Your task to perform on an android device: Search for logitech g pro on bestbuy.com, select the first entry, add it to the cart, then select checkout. Image 0: 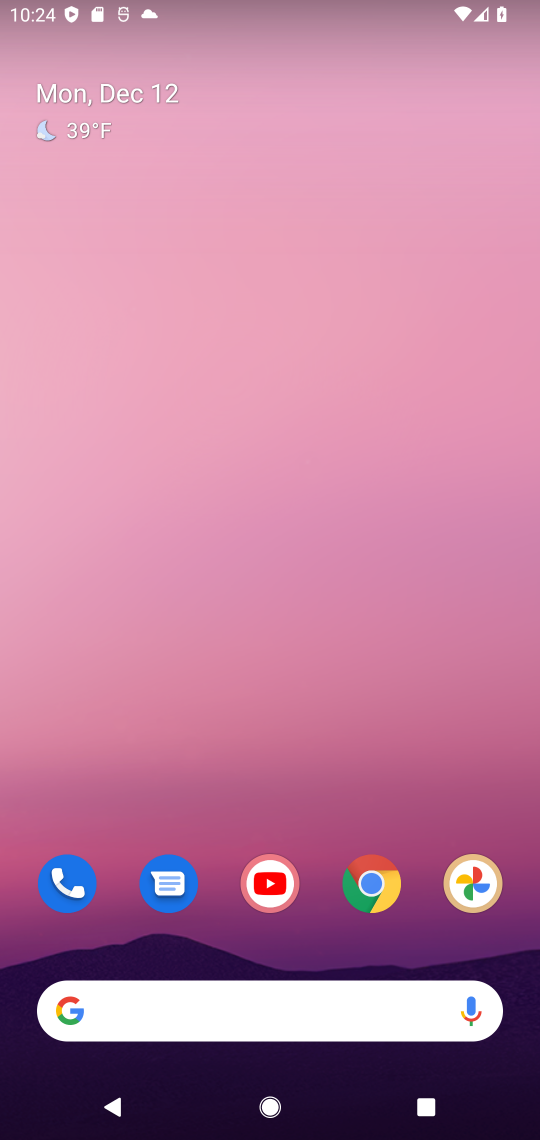
Step 0: drag from (238, 778) to (326, 233)
Your task to perform on an android device: Search for logitech g pro on bestbuy.com, select the first entry, add it to the cart, then select checkout. Image 1: 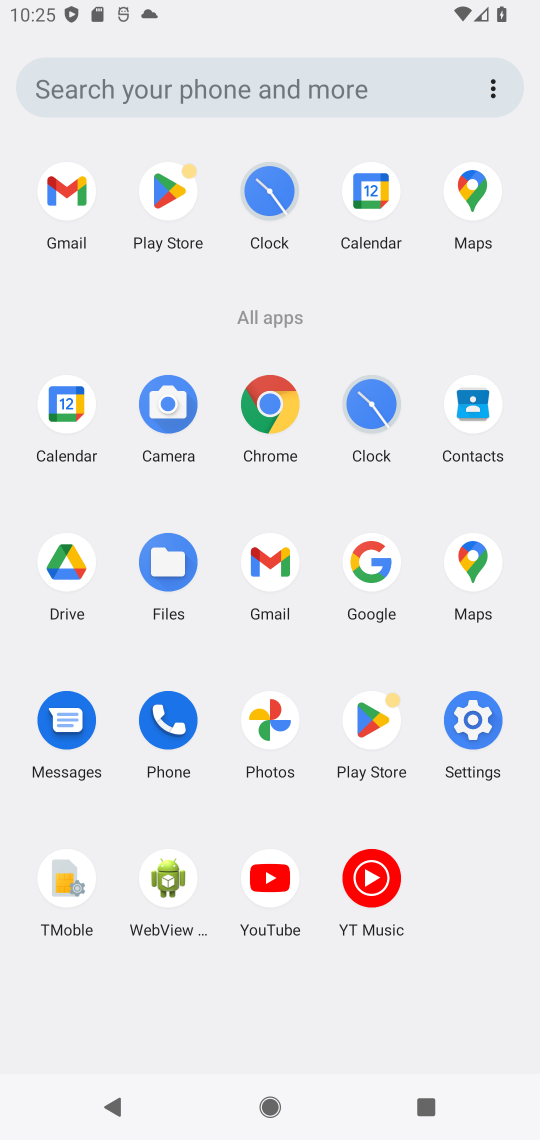
Step 1: click (365, 548)
Your task to perform on an android device: Search for logitech g pro on bestbuy.com, select the first entry, add it to the cart, then select checkout. Image 2: 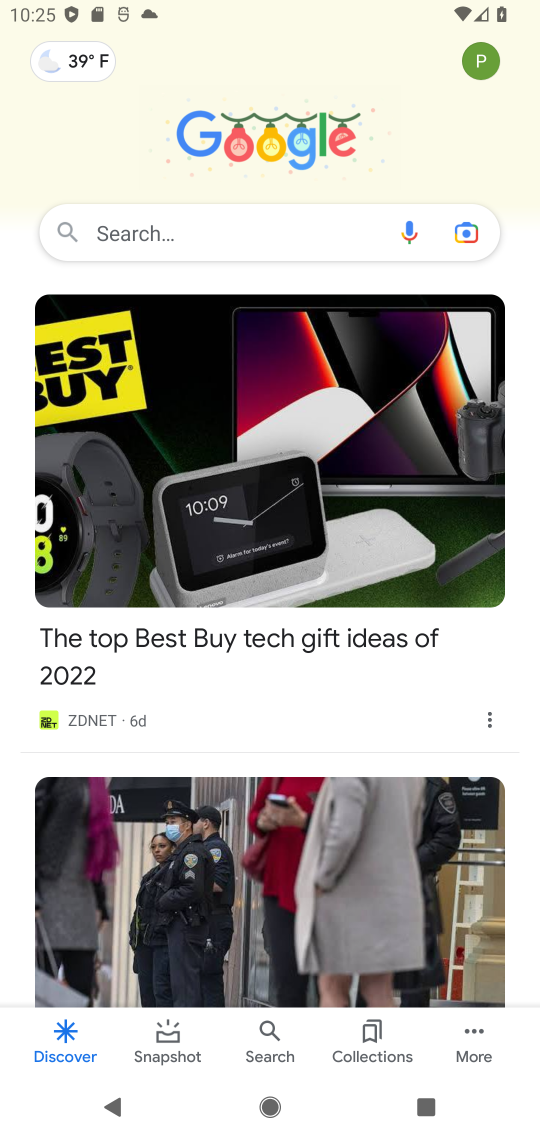
Step 2: click (266, 227)
Your task to perform on an android device: Search for logitech g pro on bestbuy.com, select the first entry, add it to the cart, then select checkout. Image 3: 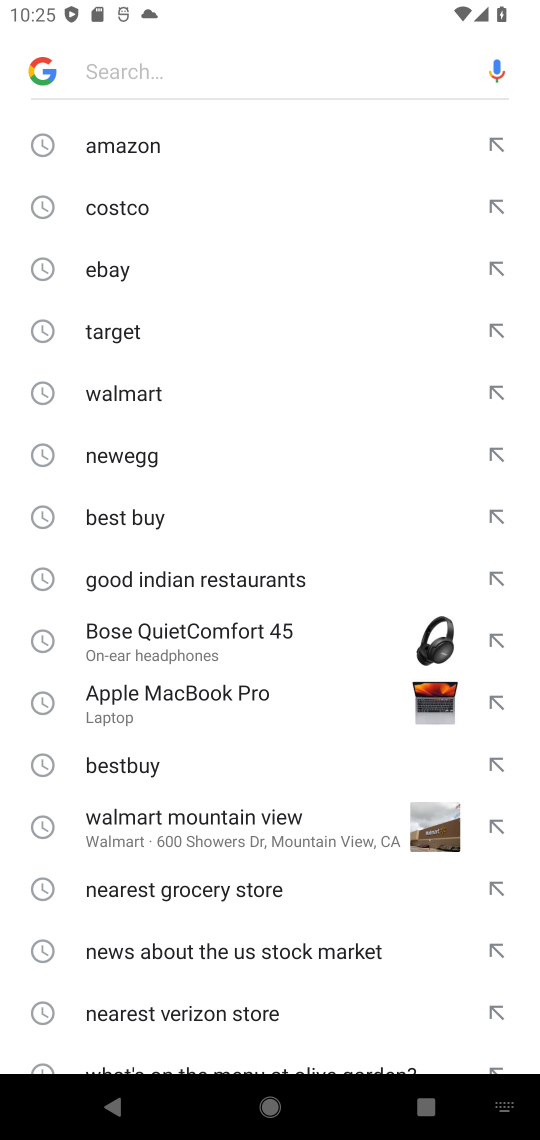
Step 3: click (131, 518)
Your task to perform on an android device: Search for logitech g pro on bestbuy.com, select the first entry, add it to the cart, then select checkout. Image 4: 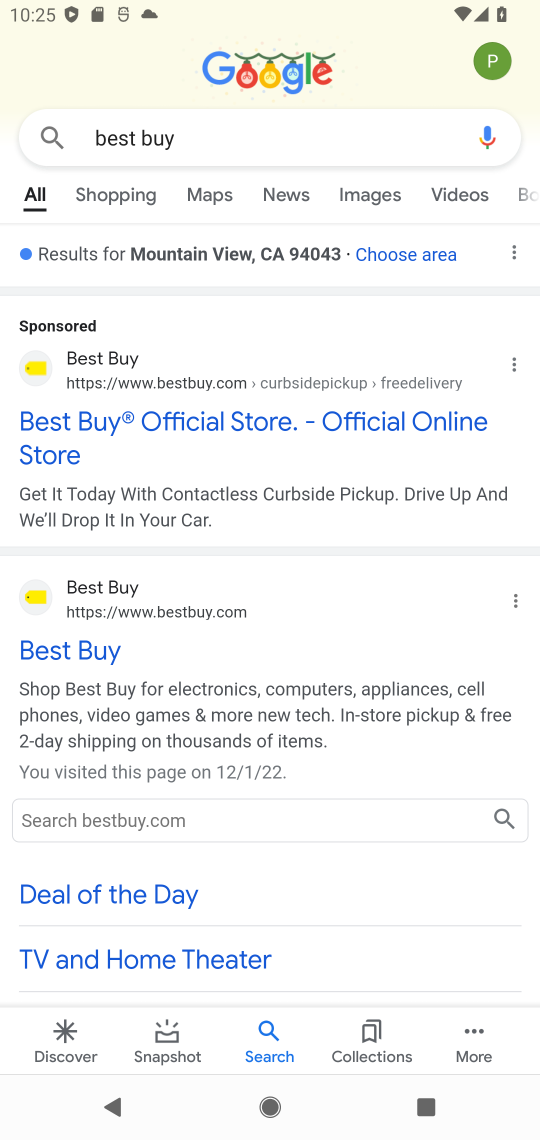
Step 4: click (94, 647)
Your task to perform on an android device: Search for logitech g pro on bestbuy.com, select the first entry, add it to the cart, then select checkout. Image 5: 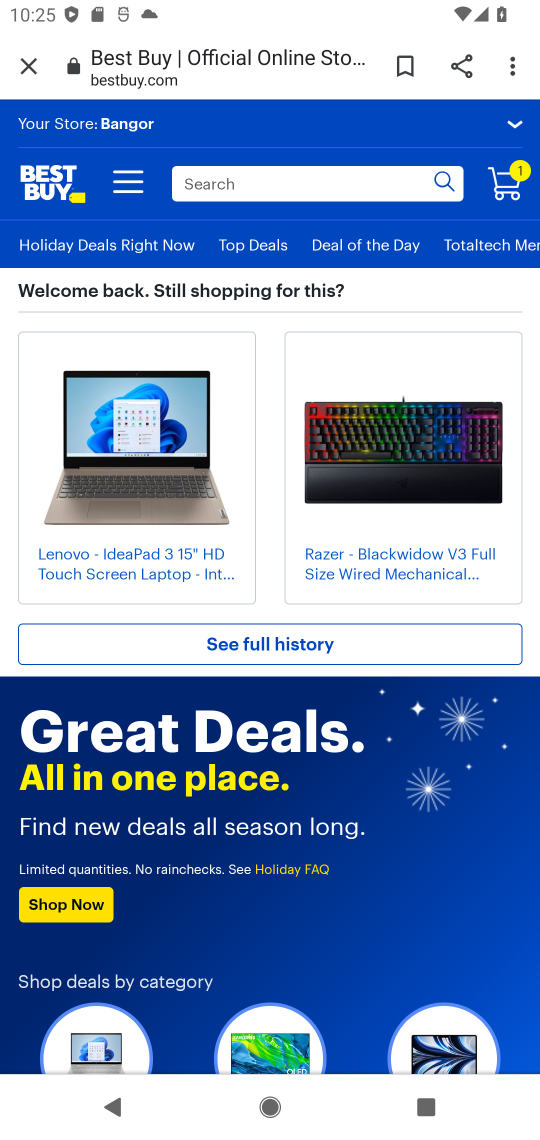
Step 5: click (334, 181)
Your task to perform on an android device: Search for logitech g pro on bestbuy.com, select the first entry, add it to the cart, then select checkout. Image 6: 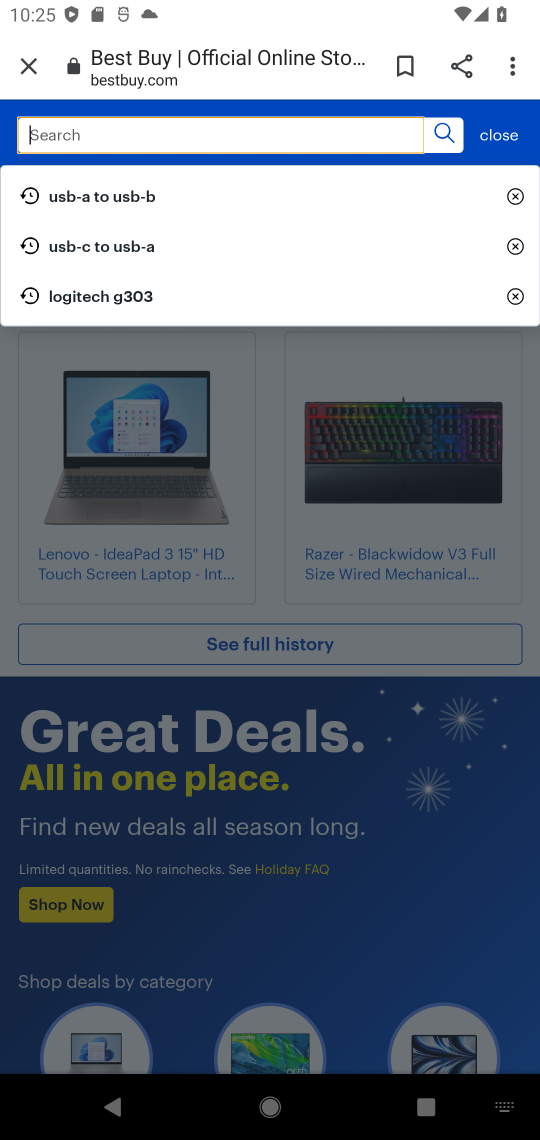
Step 6: type " logitech g pro "
Your task to perform on an android device: Search for logitech g pro on bestbuy.com, select the first entry, add it to the cart, then select checkout. Image 7: 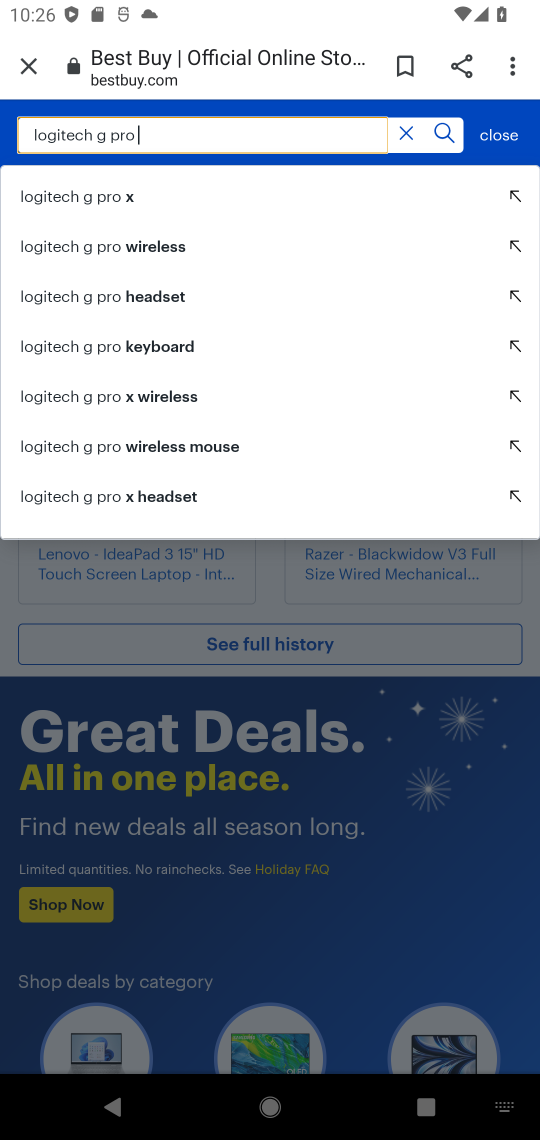
Step 7: click (448, 128)
Your task to perform on an android device: Search for logitech g pro on bestbuy.com, select the first entry, add it to the cart, then select checkout. Image 8: 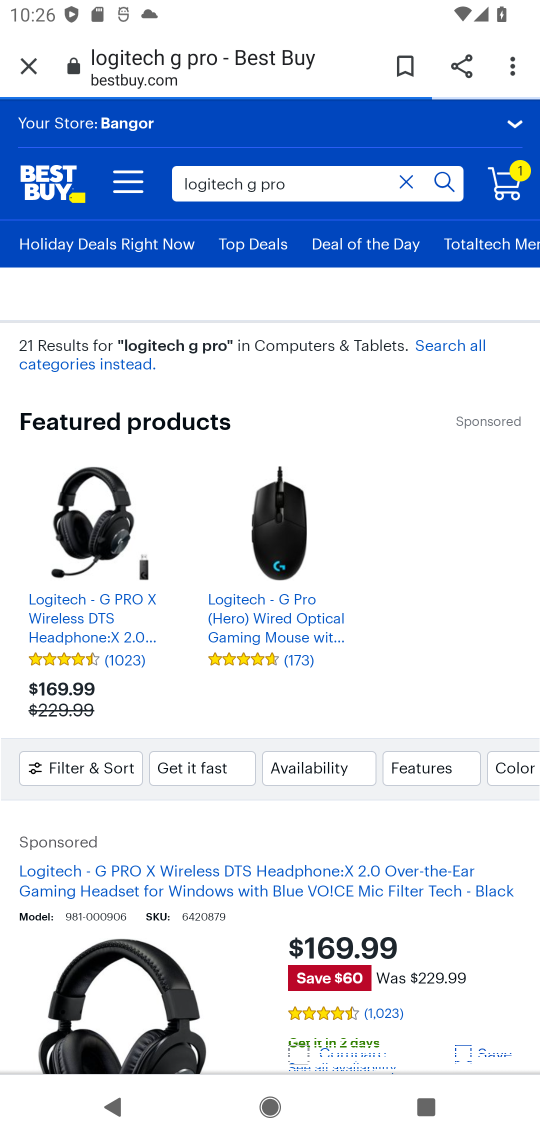
Step 8: drag from (194, 797) to (248, 421)
Your task to perform on an android device: Search for logitech g pro on bestbuy.com, select the first entry, add it to the cart, then select checkout. Image 9: 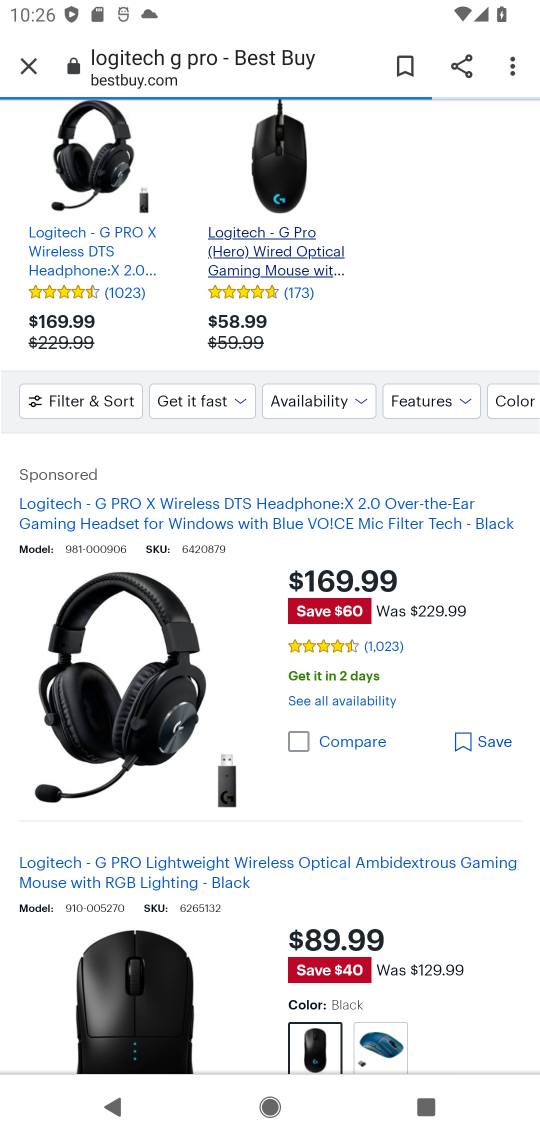
Step 9: click (352, 562)
Your task to perform on an android device: Search for logitech g pro on bestbuy.com, select the first entry, add it to the cart, then select checkout. Image 10: 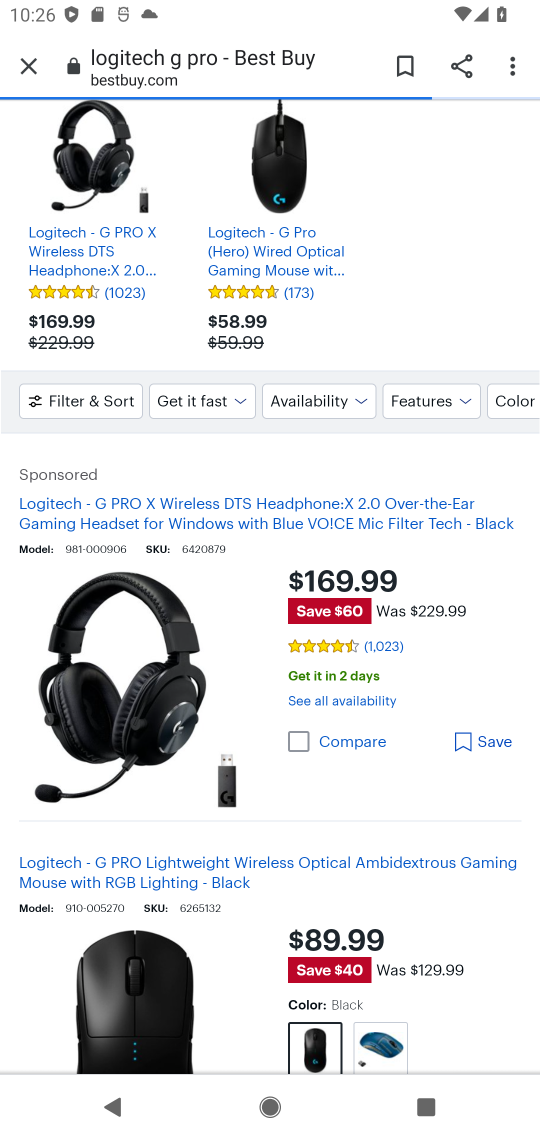
Step 10: click (332, 580)
Your task to perform on an android device: Search for logitech g pro on bestbuy.com, select the first entry, add it to the cart, then select checkout. Image 11: 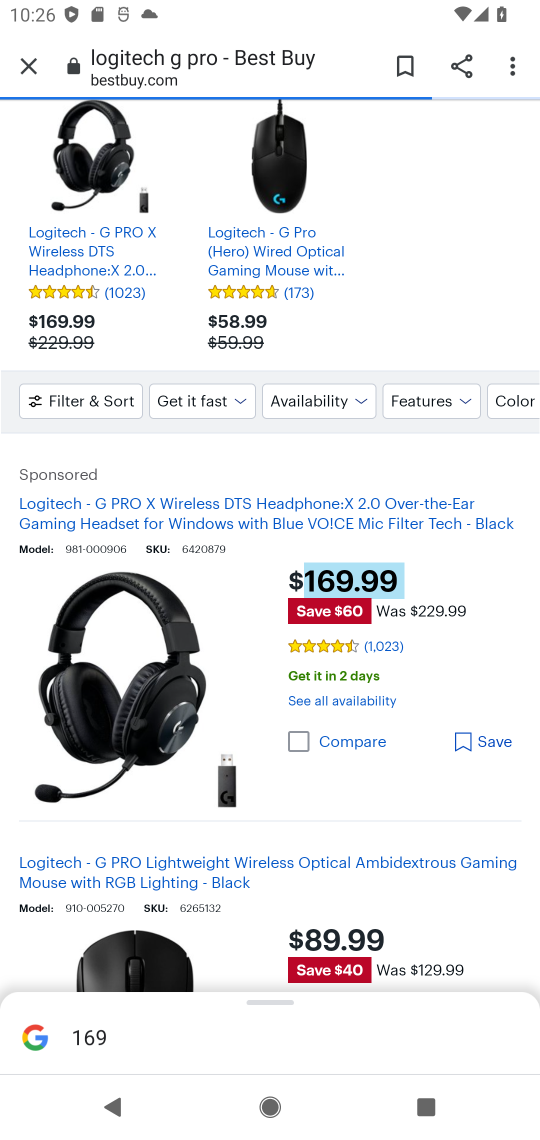
Step 11: drag from (346, 713) to (346, 615)
Your task to perform on an android device: Search for logitech g pro on bestbuy.com, select the first entry, add it to the cart, then select checkout. Image 12: 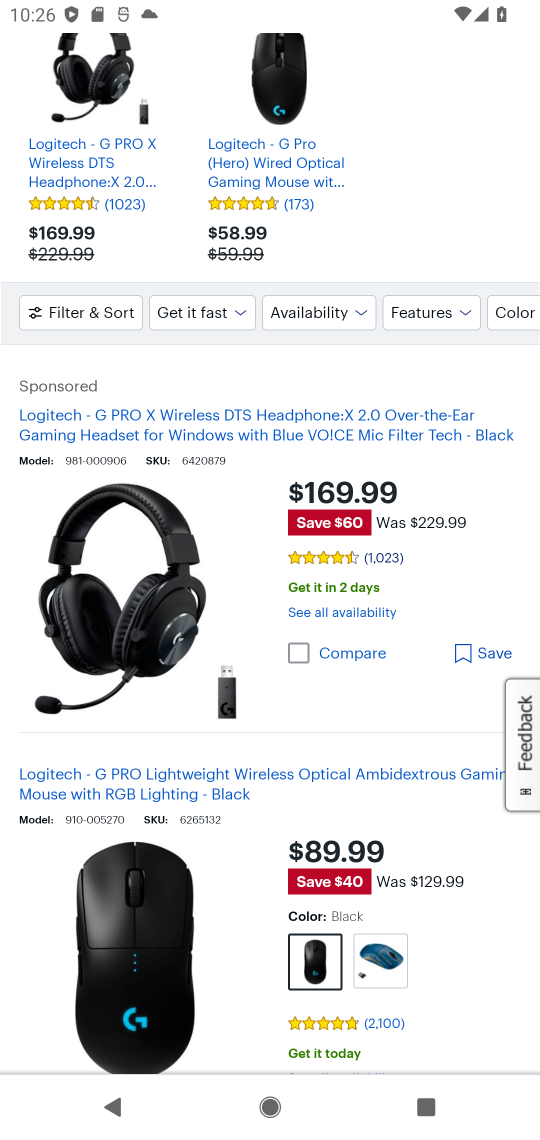
Step 12: click (346, 615)
Your task to perform on an android device: Search for logitech g pro on bestbuy.com, select the first entry, add it to the cart, then select checkout. Image 13: 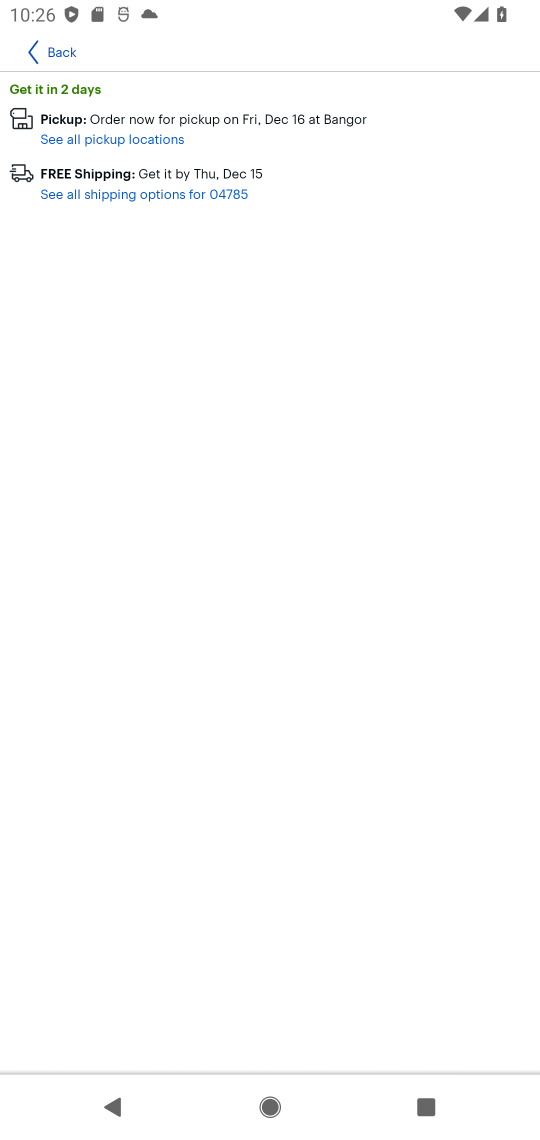
Step 13: click (56, 53)
Your task to perform on an android device: Search for logitech g pro on bestbuy.com, select the first entry, add it to the cart, then select checkout. Image 14: 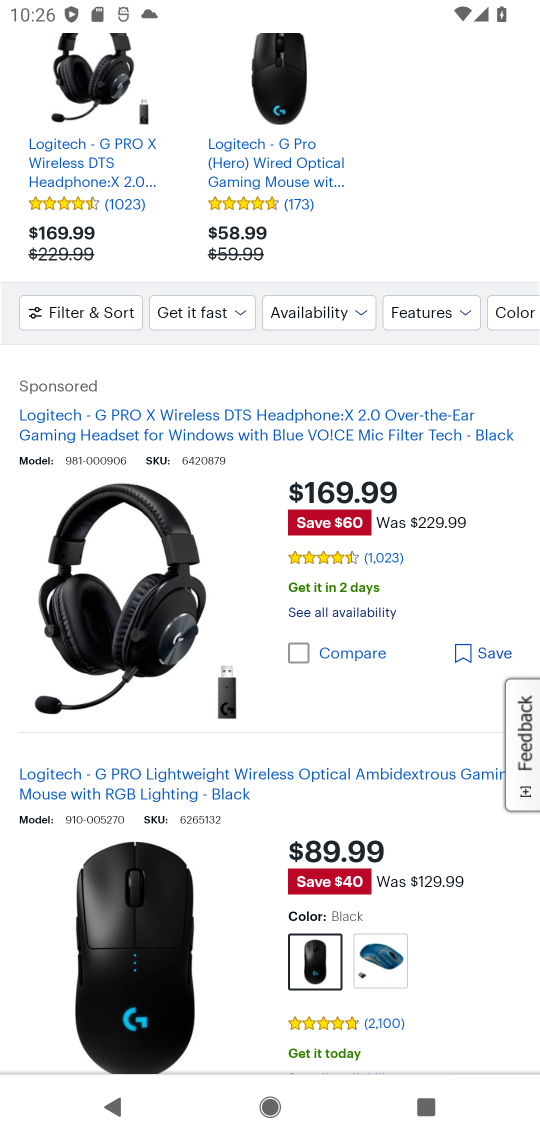
Step 14: click (335, 487)
Your task to perform on an android device: Search for logitech g pro on bestbuy.com, select the first entry, add it to the cart, then select checkout. Image 15: 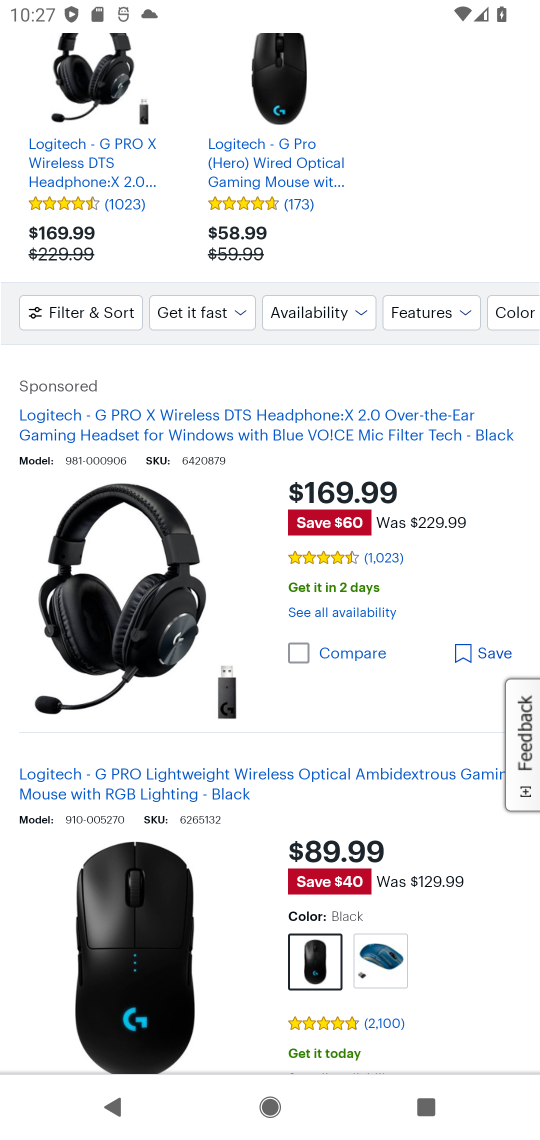
Step 15: click (335, 487)
Your task to perform on an android device: Search for logitech g pro on bestbuy.com, select the first entry, add it to the cart, then select checkout. Image 16: 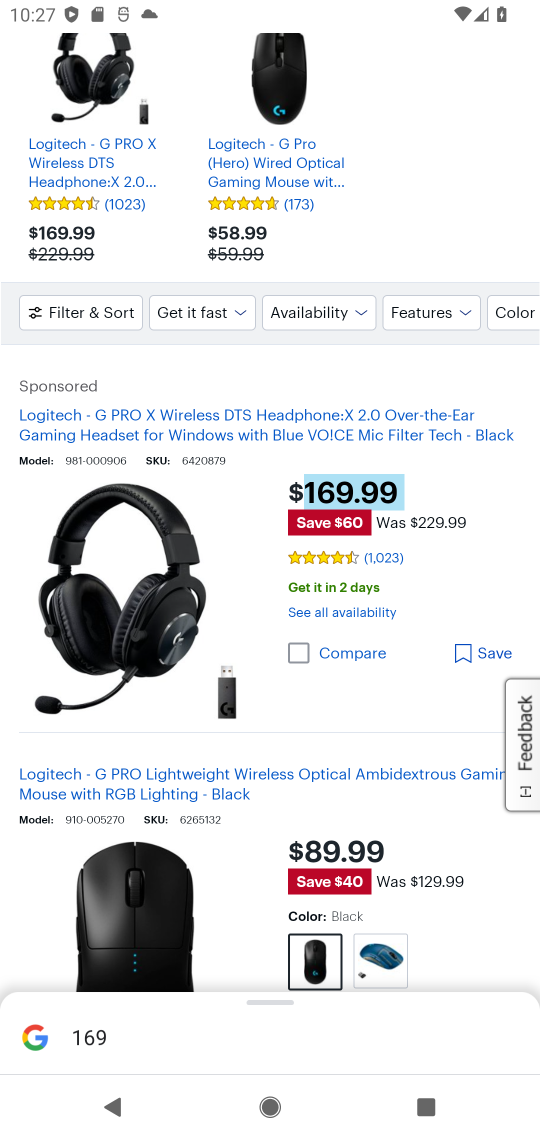
Step 16: click (335, 487)
Your task to perform on an android device: Search for logitech g pro on bestbuy.com, select the first entry, add it to the cart, then select checkout. Image 17: 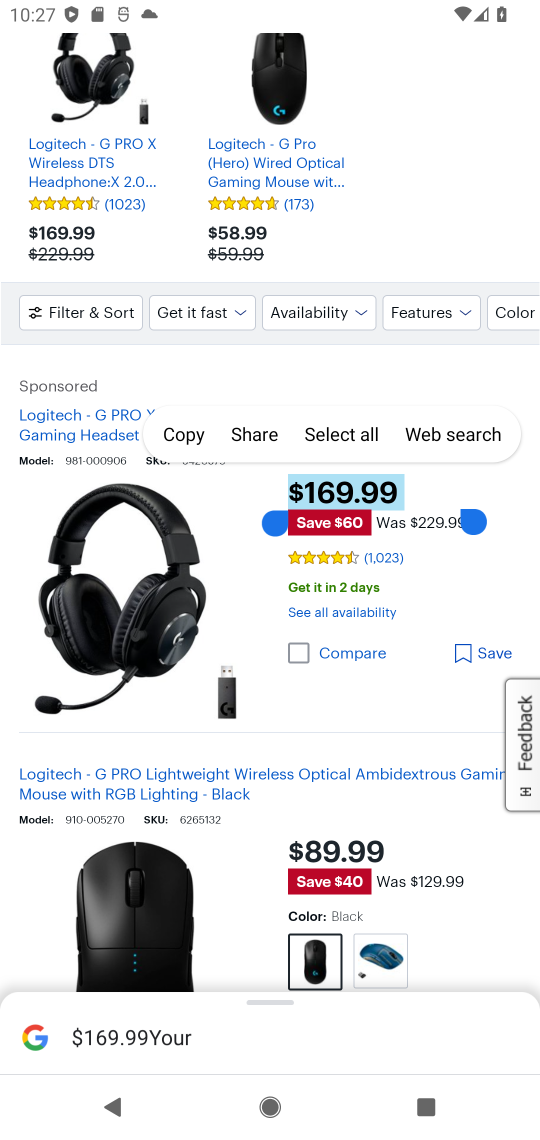
Step 17: click (146, 512)
Your task to perform on an android device: Search for logitech g pro on bestbuy.com, select the first entry, add it to the cart, then select checkout. Image 18: 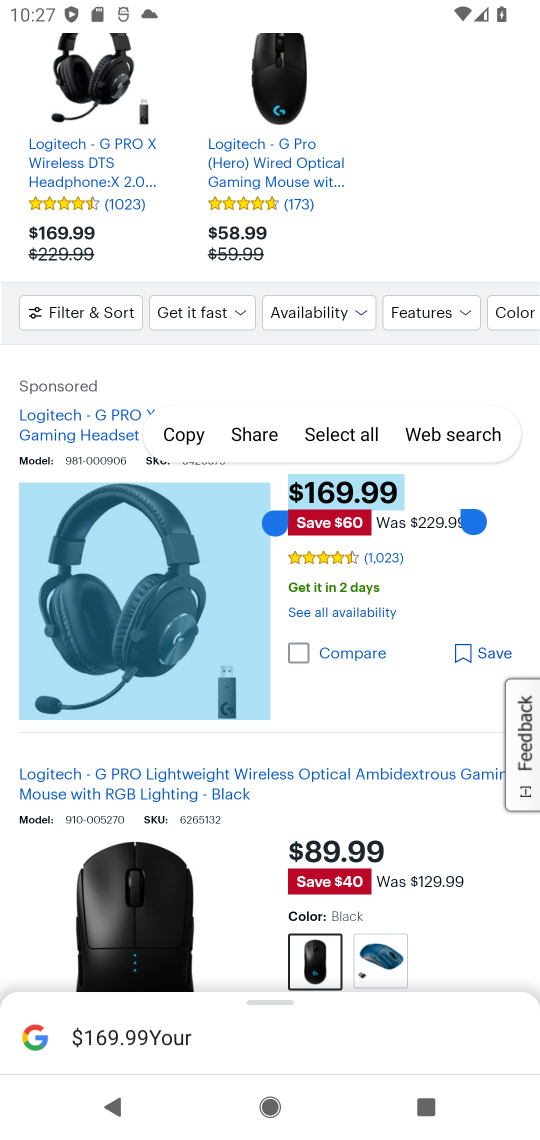
Step 18: click (146, 512)
Your task to perform on an android device: Search for logitech g pro on bestbuy.com, select the first entry, add it to the cart, then select checkout. Image 19: 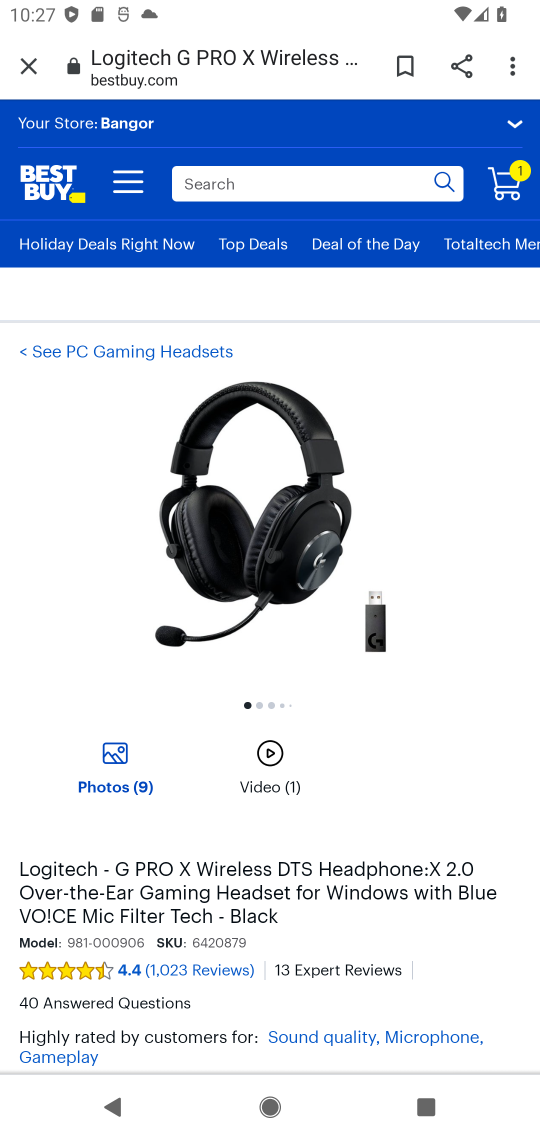
Step 19: drag from (160, 677) to (216, 503)
Your task to perform on an android device: Search for logitech g pro on bestbuy.com, select the first entry, add it to the cart, then select checkout. Image 20: 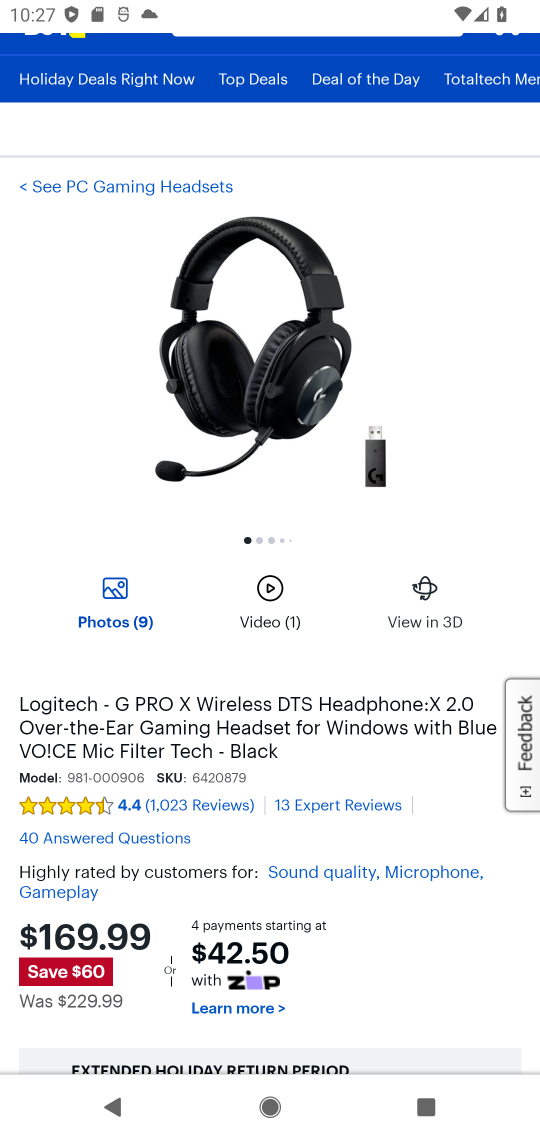
Step 20: drag from (338, 938) to (338, 650)
Your task to perform on an android device: Search for logitech g pro on bestbuy.com, select the first entry, add it to the cart, then select checkout. Image 21: 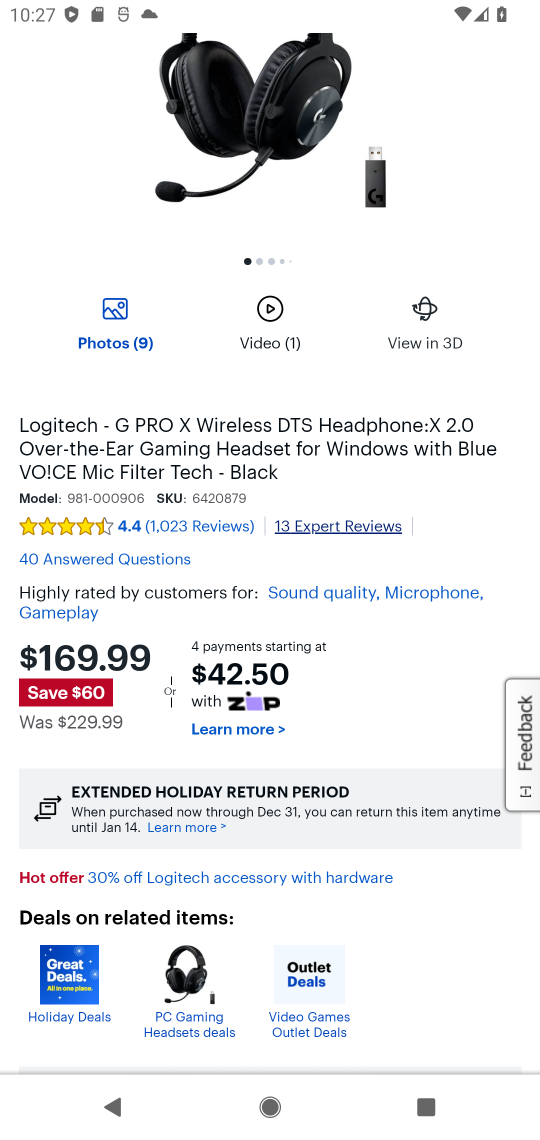
Step 21: drag from (448, 787) to (456, 699)
Your task to perform on an android device: Search for logitech g pro on bestbuy.com, select the first entry, add it to the cart, then select checkout. Image 22: 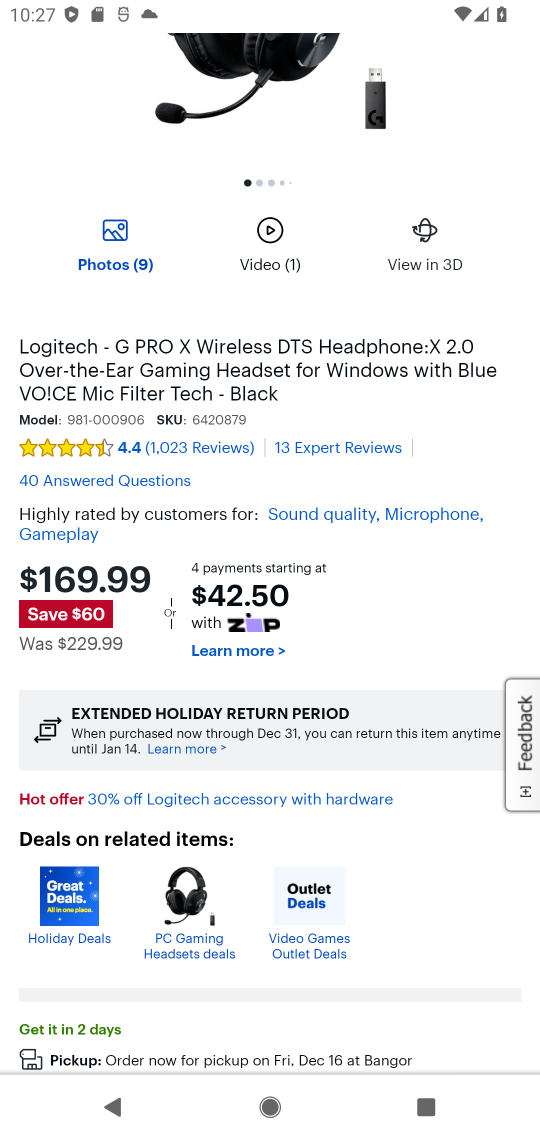
Step 22: drag from (365, 894) to (363, 767)
Your task to perform on an android device: Search for logitech g pro on bestbuy.com, select the first entry, add it to the cart, then select checkout. Image 23: 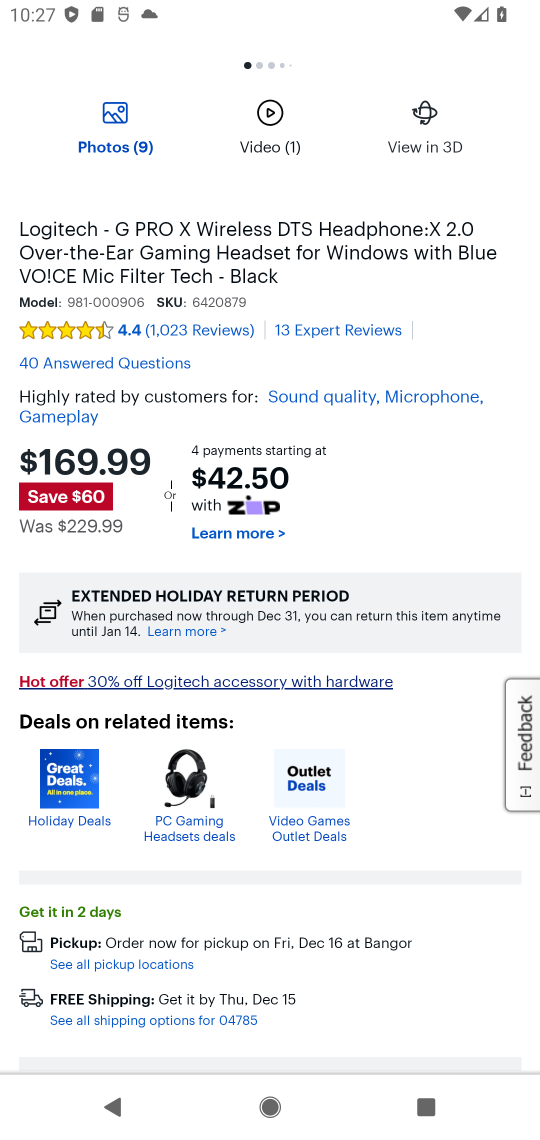
Step 23: drag from (301, 762) to (310, 585)
Your task to perform on an android device: Search for logitech g pro on bestbuy.com, select the first entry, add it to the cart, then select checkout. Image 24: 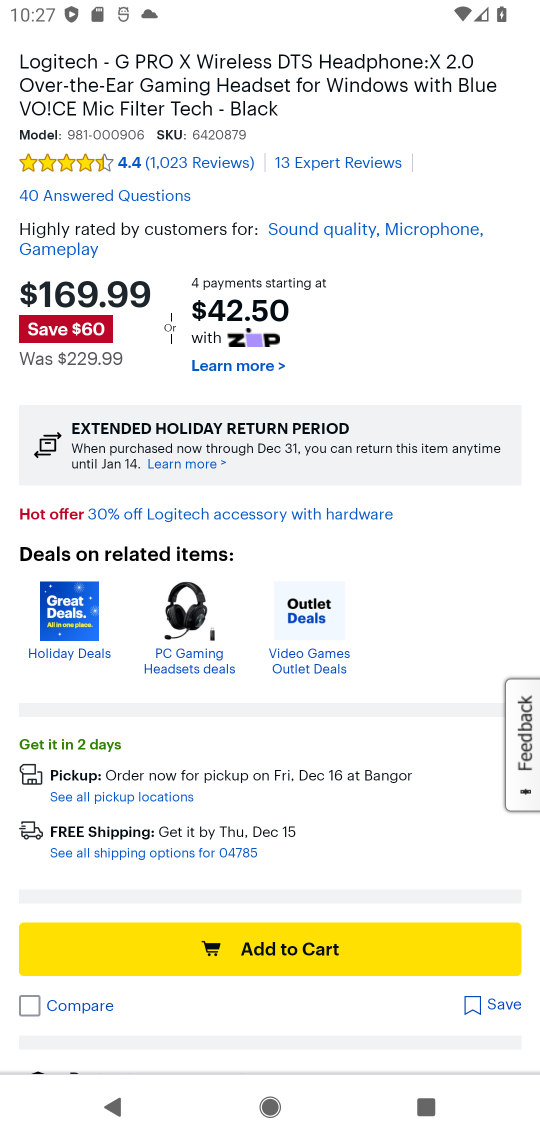
Step 24: click (282, 953)
Your task to perform on an android device: Search for logitech g pro on bestbuy.com, select the first entry, add it to the cart, then select checkout. Image 25: 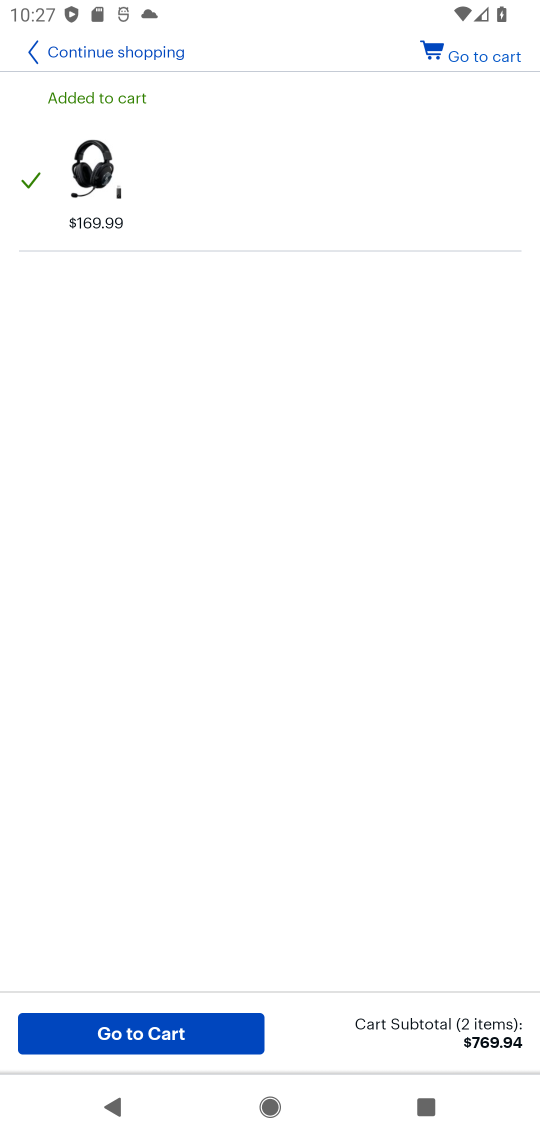
Step 25: click (137, 1047)
Your task to perform on an android device: Search for logitech g pro on bestbuy.com, select the first entry, add it to the cart, then select checkout. Image 26: 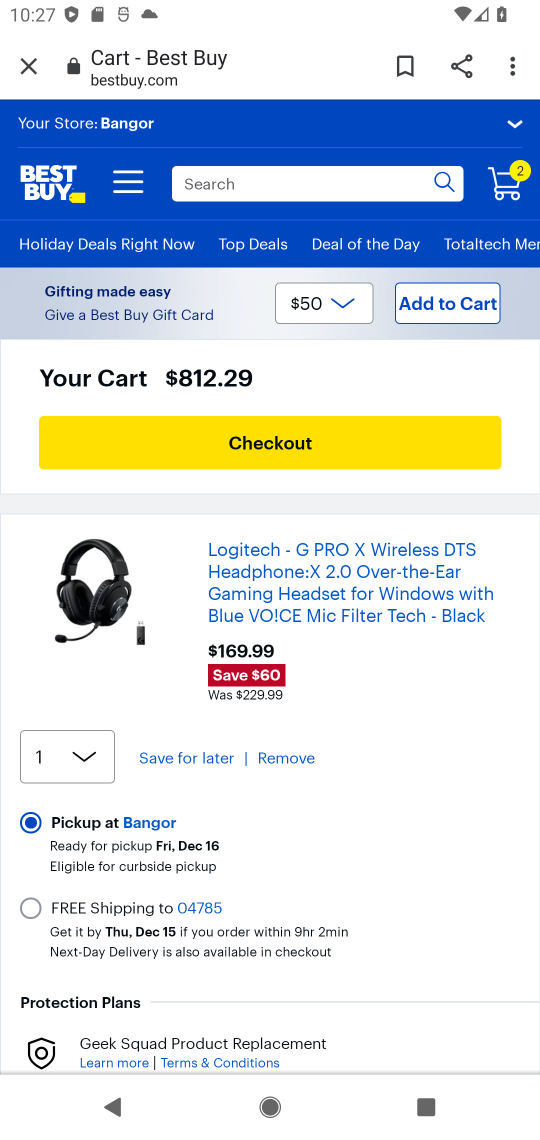
Step 26: click (285, 453)
Your task to perform on an android device: Search for logitech g pro on bestbuy.com, select the first entry, add it to the cart, then select checkout. Image 27: 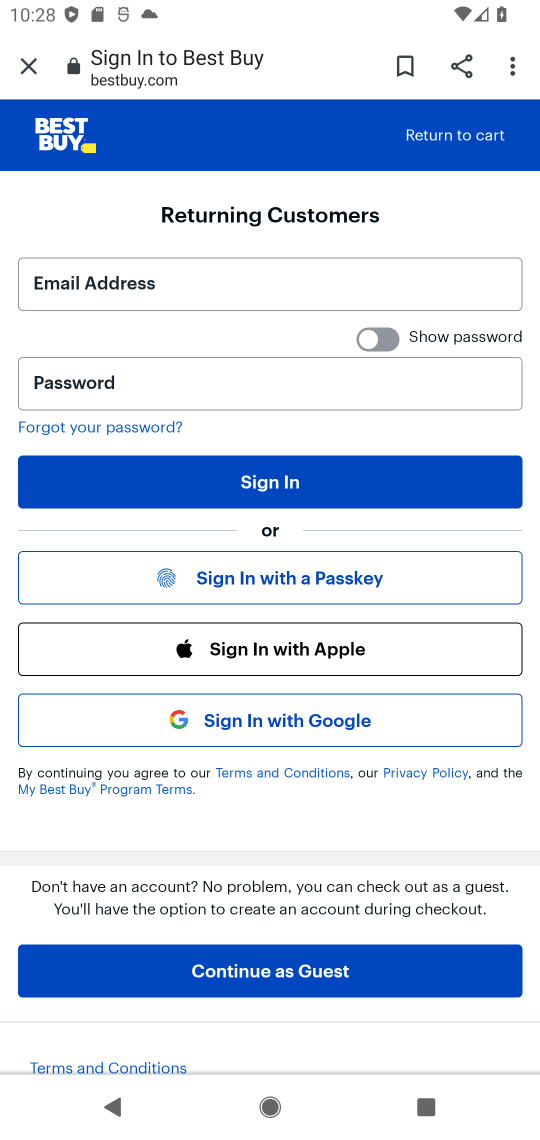
Step 27: task complete